Your task to perform on an android device: Open battery settings Image 0: 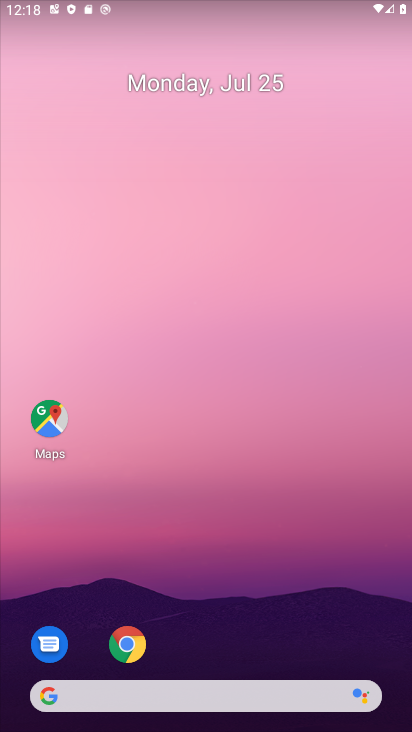
Step 0: drag from (396, 651) to (97, 20)
Your task to perform on an android device: Open battery settings Image 1: 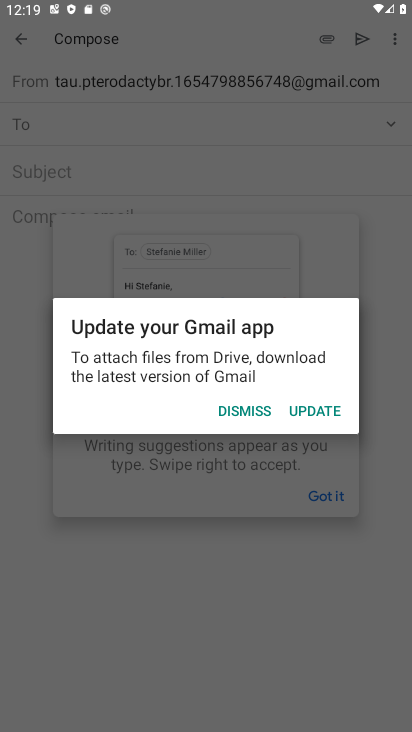
Step 1: press home button
Your task to perform on an android device: Open battery settings Image 2: 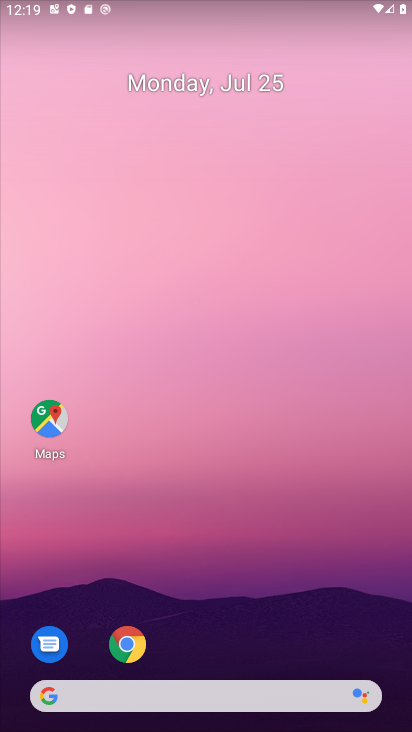
Step 2: drag from (366, 650) to (114, 24)
Your task to perform on an android device: Open battery settings Image 3: 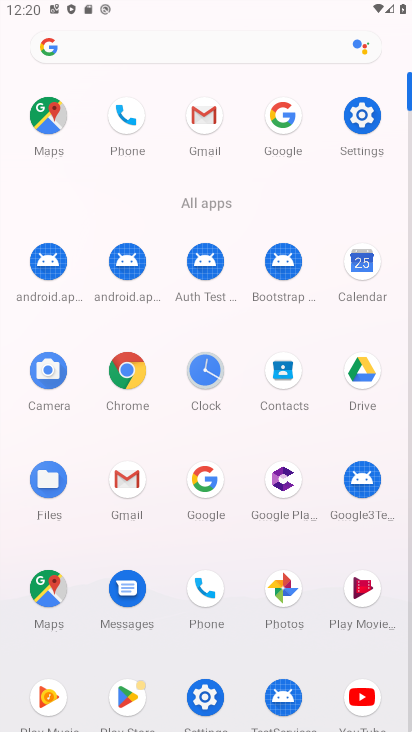
Step 3: click (225, 699)
Your task to perform on an android device: Open battery settings Image 4: 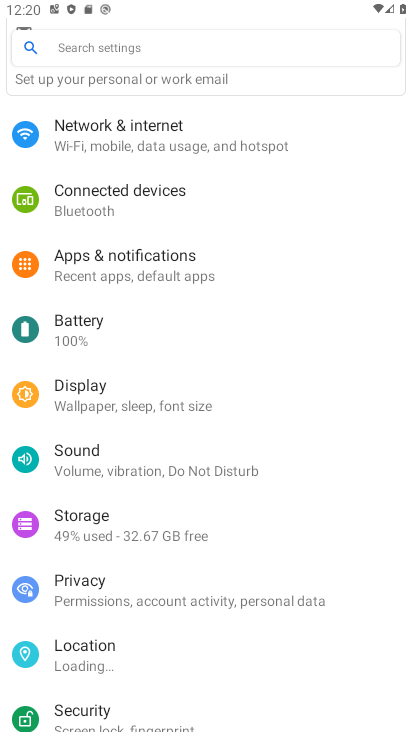
Step 4: click (95, 335)
Your task to perform on an android device: Open battery settings Image 5: 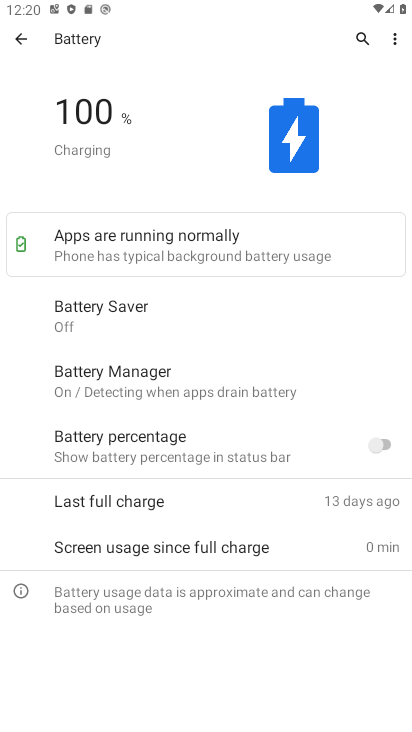
Step 5: task complete